Your task to perform on an android device: move a message to another label in the gmail app Image 0: 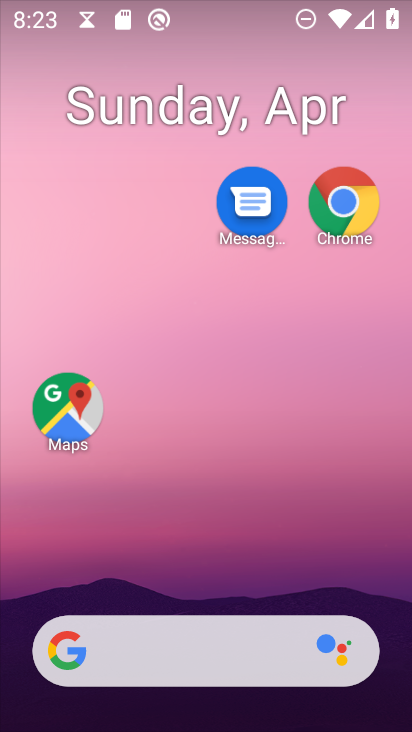
Step 0: drag from (161, 649) to (294, 98)
Your task to perform on an android device: move a message to another label in the gmail app Image 1: 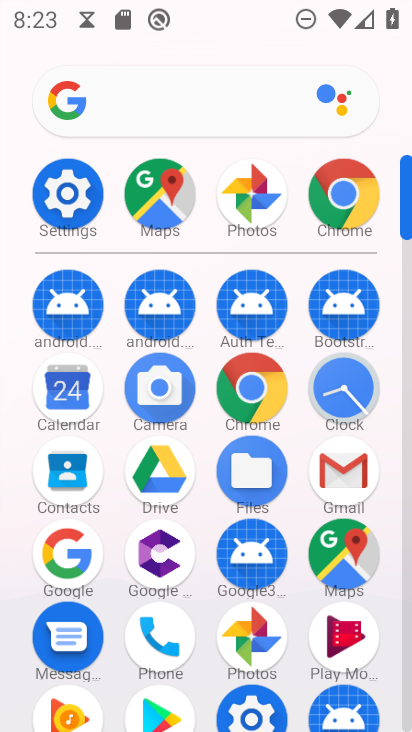
Step 1: click (344, 485)
Your task to perform on an android device: move a message to another label in the gmail app Image 2: 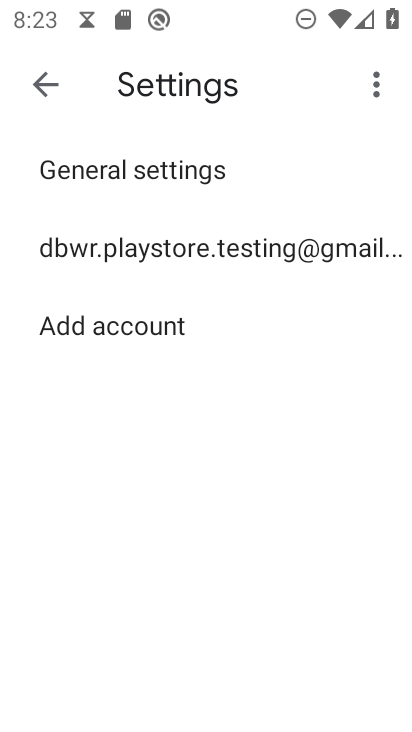
Step 2: click (39, 79)
Your task to perform on an android device: move a message to another label in the gmail app Image 3: 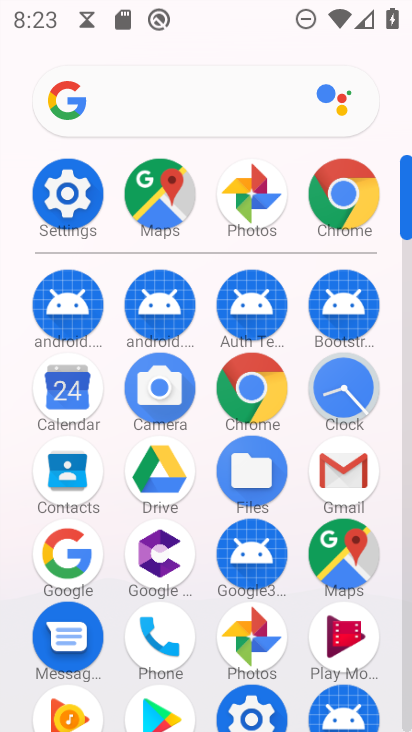
Step 3: click (346, 477)
Your task to perform on an android device: move a message to another label in the gmail app Image 4: 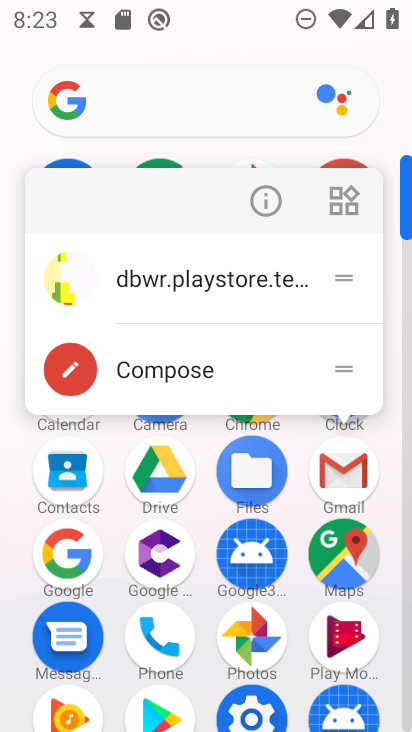
Step 4: click (343, 475)
Your task to perform on an android device: move a message to another label in the gmail app Image 5: 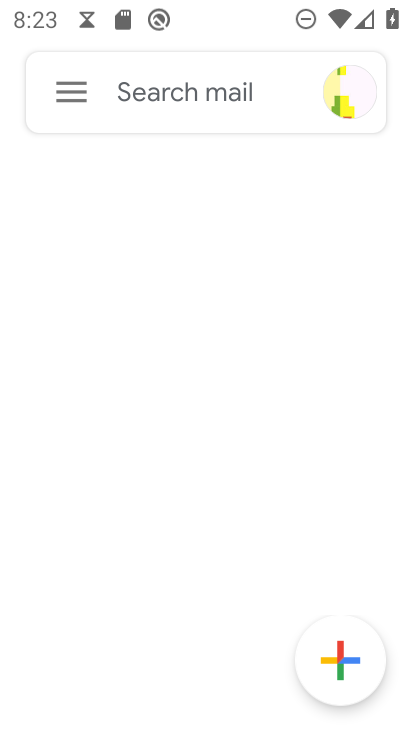
Step 5: click (173, 263)
Your task to perform on an android device: move a message to another label in the gmail app Image 6: 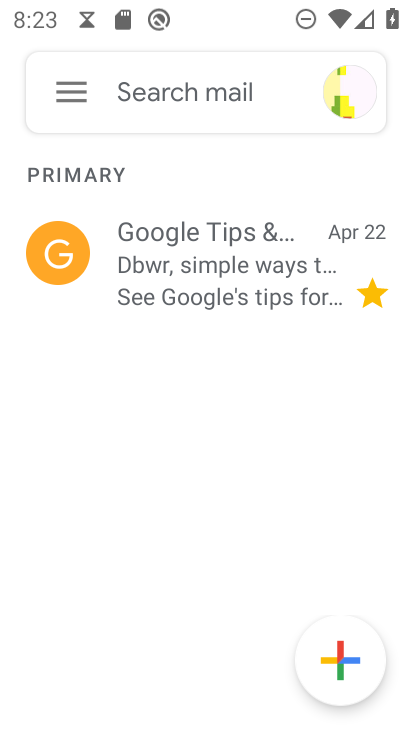
Step 6: click (196, 266)
Your task to perform on an android device: move a message to another label in the gmail app Image 7: 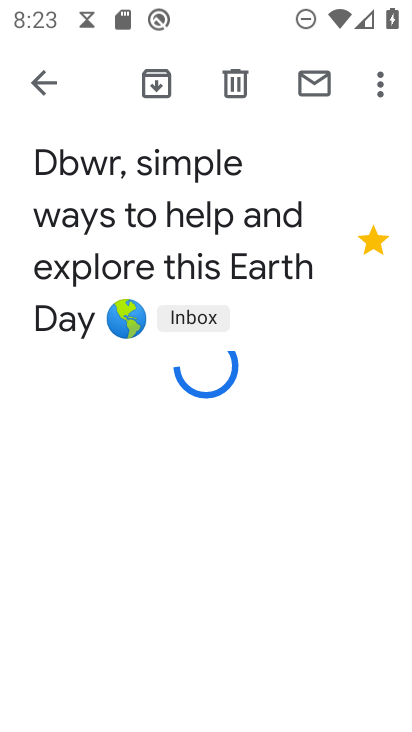
Step 7: click (192, 315)
Your task to perform on an android device: move a message to another label in the gmail app Image 8: 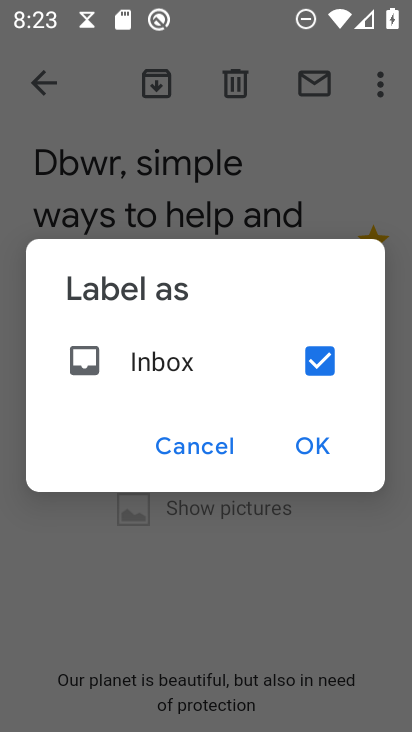
Step 8: click (310, 364)
Your task to perform on an android device: move a message to another label in the gmail app Image 9: 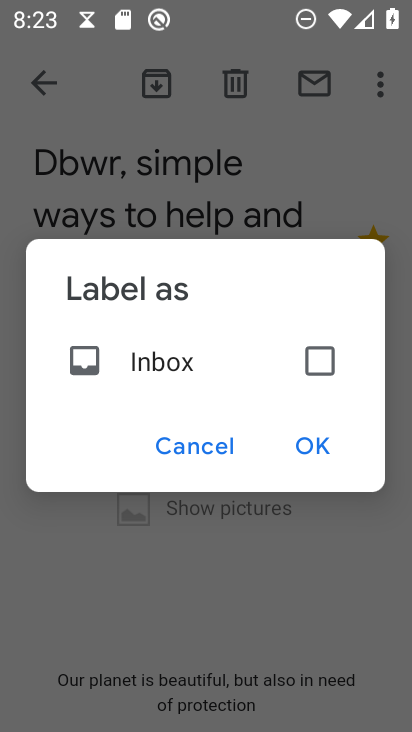
Step 9: click (315, 443)
Your task to perform on an android device: move a message to another label in the gmail app Image 10: 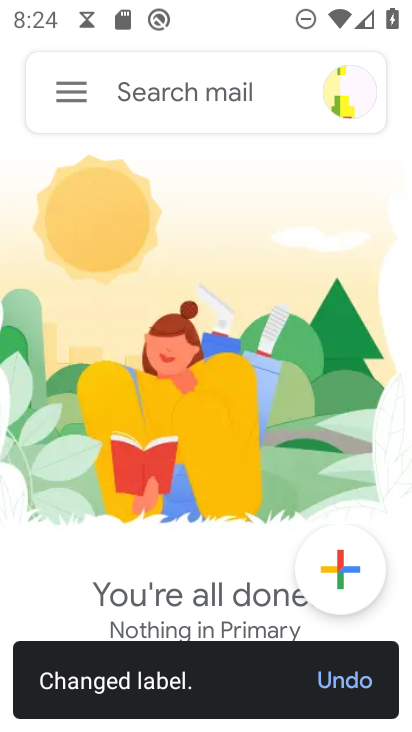
Step 10: task complete